Your task to perform on an android device: Go to Reddit.com Image 0: 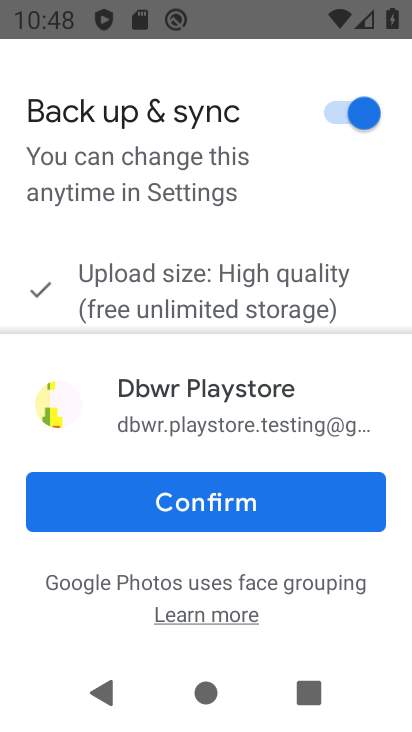
Step 0: press home button
Your task to perform on an android device: Go to Reddit.com Image 1: 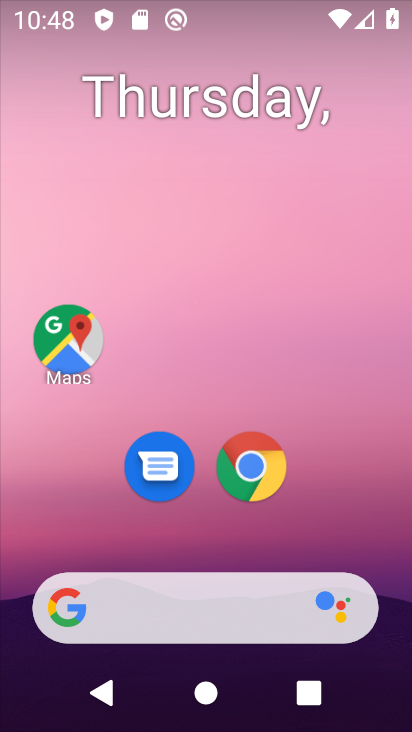
Step 1: click (264, 466)
Your task to perform on an android device: Go to Reddit.com Image 2: 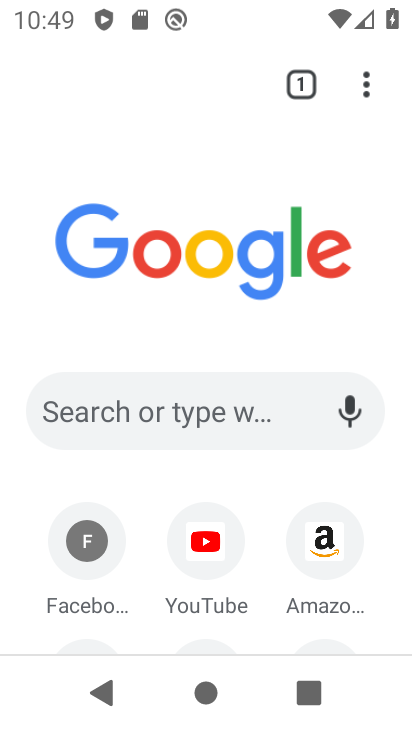
Step 2: click (199, 397)
Your task to perform on an android device: Go to Reddit.com Image 3: 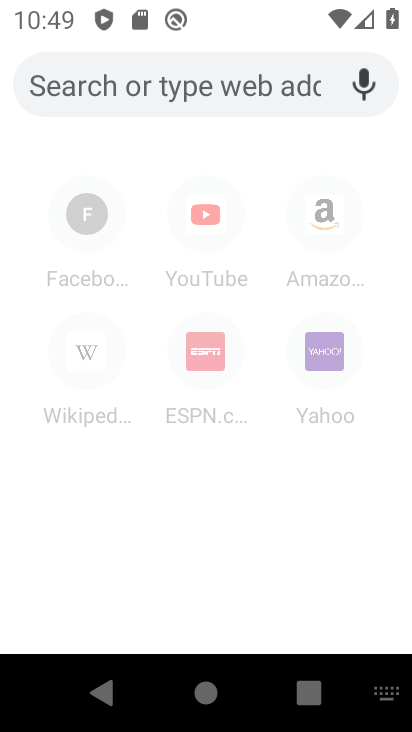
Step 3: type "reddit"
Your task to perform on an android device: Go to Reddit.com Image 4: 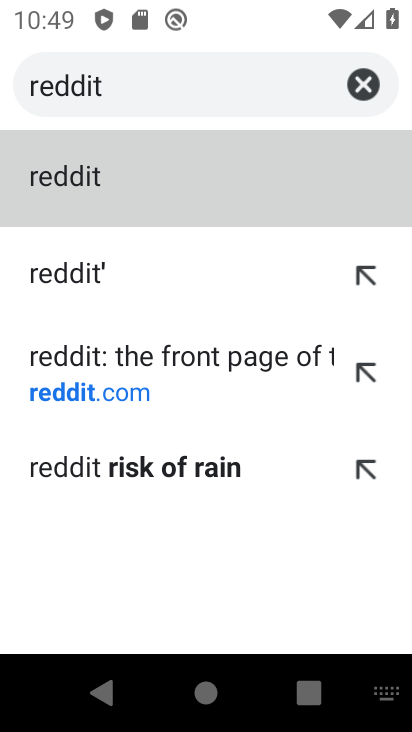
Step 4: click (66, 363)
Your task to perform on an android device: Go to Reddit.com Image 5: 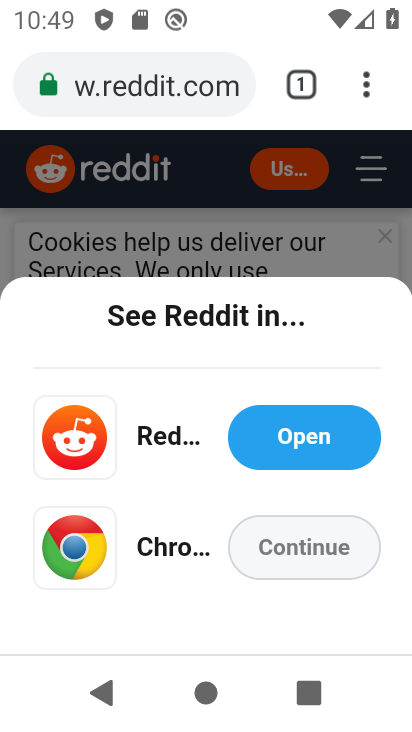
Step 5: click (279, 536)
Your task to perform on an android device: Go to Reddit.com Image 6: 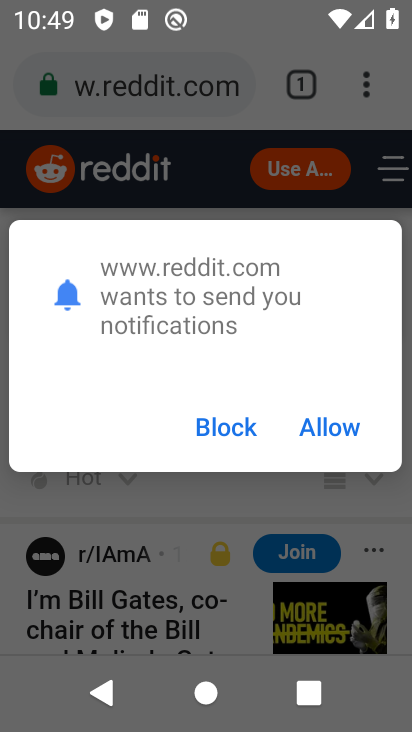
Step 6: click (351, 422)
Your task to perform on an android device: Go to Reddit.com Image 7: 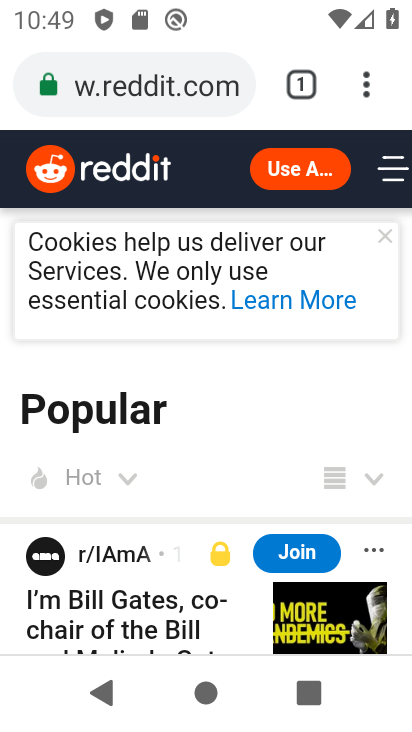
Step 7: task complete